Your task to perform on an android device: Search for vegetarian restaurants on Maps Image 0: 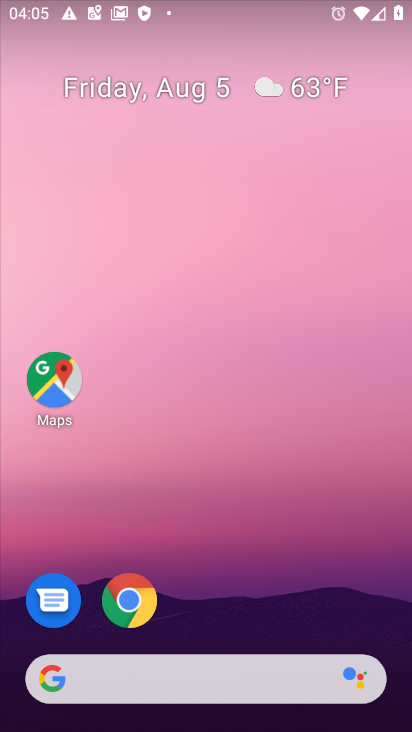
Step 0: click (55, 382)
Your task to perform on an android device: Search for vegetarian restaurants on Maps Image 1: 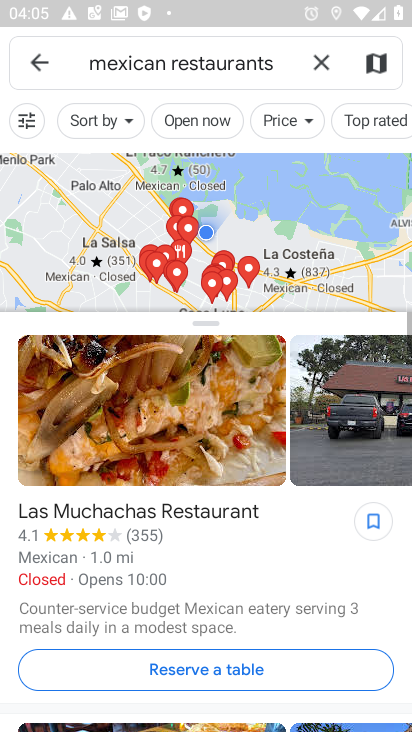
Step 1: click (320, 65)
Your task to perform on an android device: Search for vegetarian restaurants on Maps Image 2: 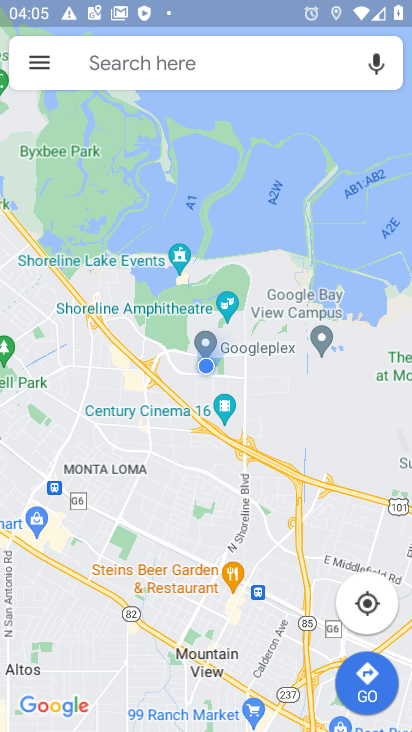
Step 2: click (243, 83)
Your task to perform on an android device: Search for vegetarian restaurants on Maps Image 3: 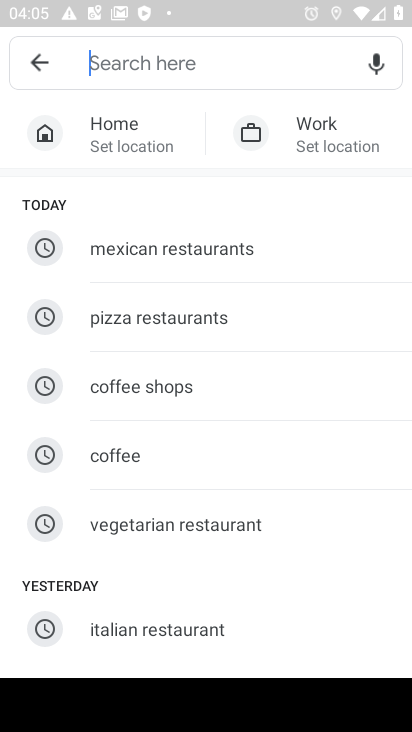
Step 3: type "vegetarian restaurants"
Your task to perform on an android device: Search for vegetarian restaurants on Maps Image 4: 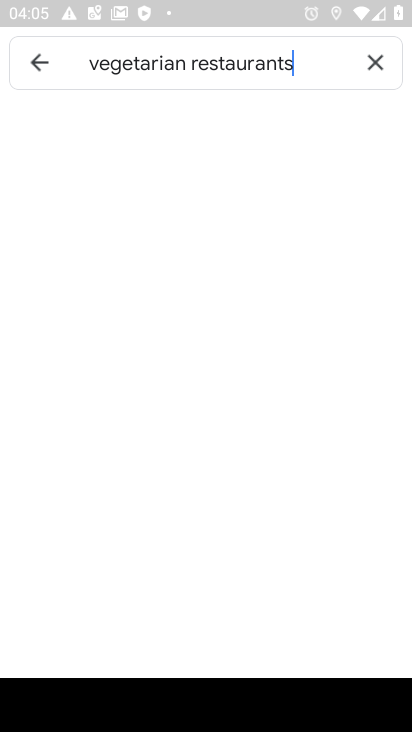
Step 4: type ""
Your task to perform on an android device: Search for vegetarian restaurants on Maps Image 5: 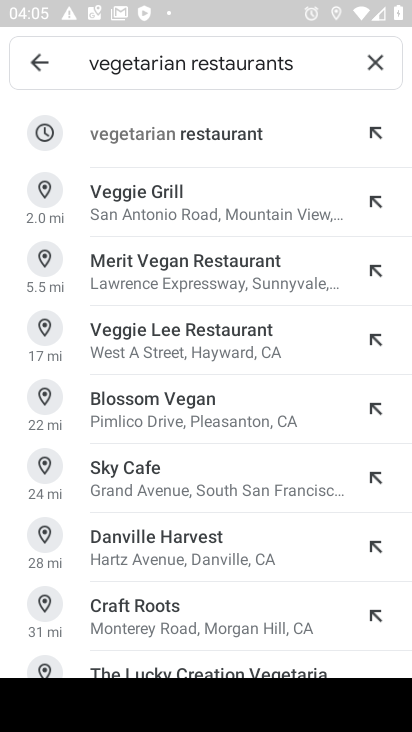
Step 5: click (152, 136)
Your task to perform on an android device: Search for vegetarian restaurants on Maps Image 6: 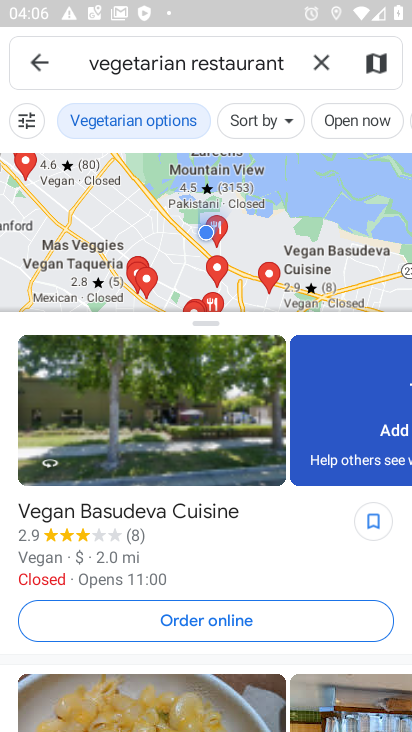
Step 6: task complete